Your task to perform on an android device: set default search engine in the chrome app Image 0: 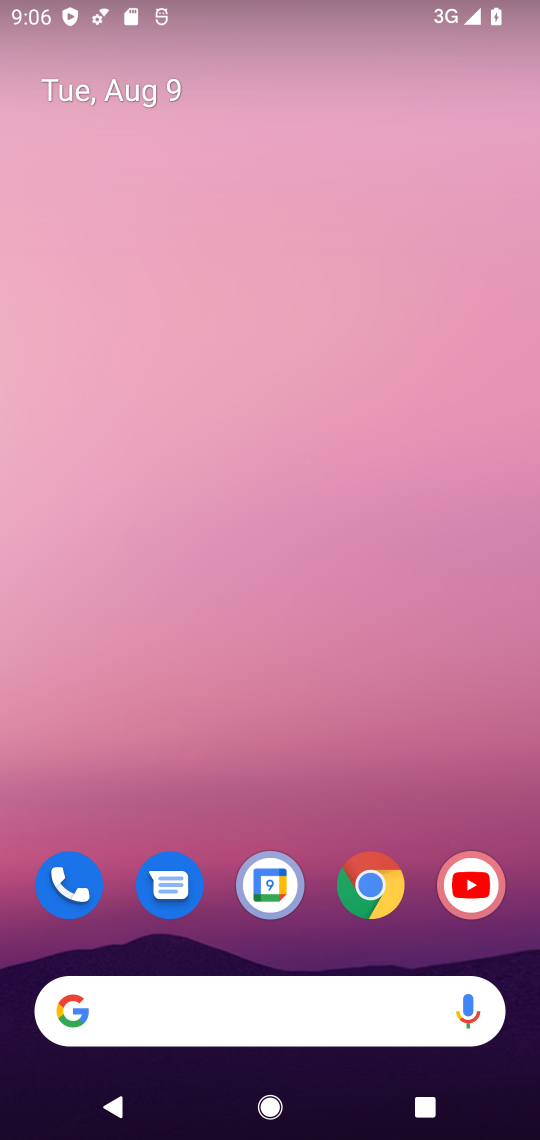
Step 0: press home button
Your task to perform on an android device: set default search engine in the chrome app Image 1: 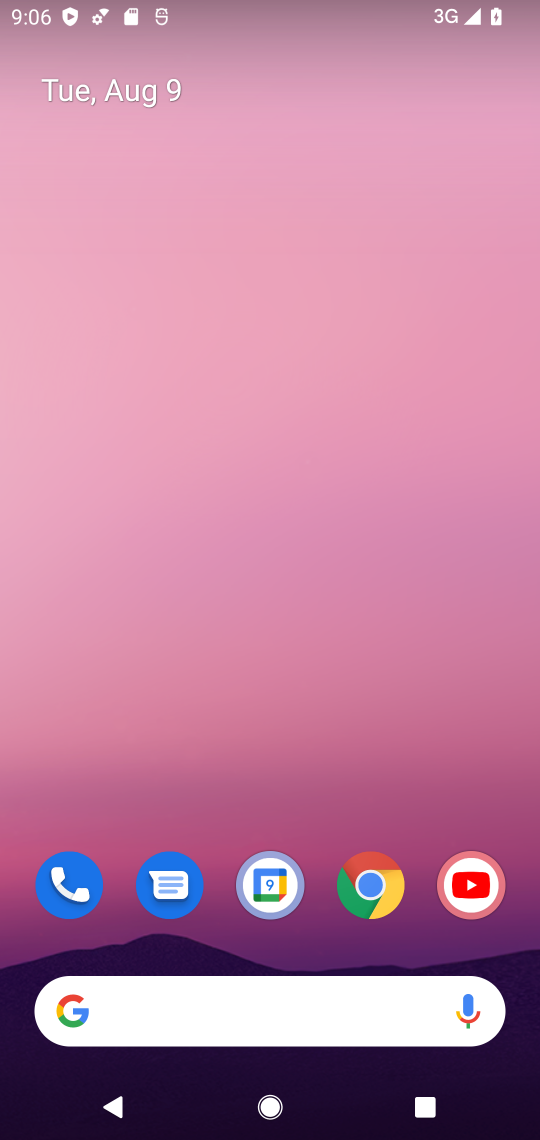
Step 1: drag from (309, 842) to (314, 268)
Your task to perform on an android device: set default search engine in the chrome app Image 2: 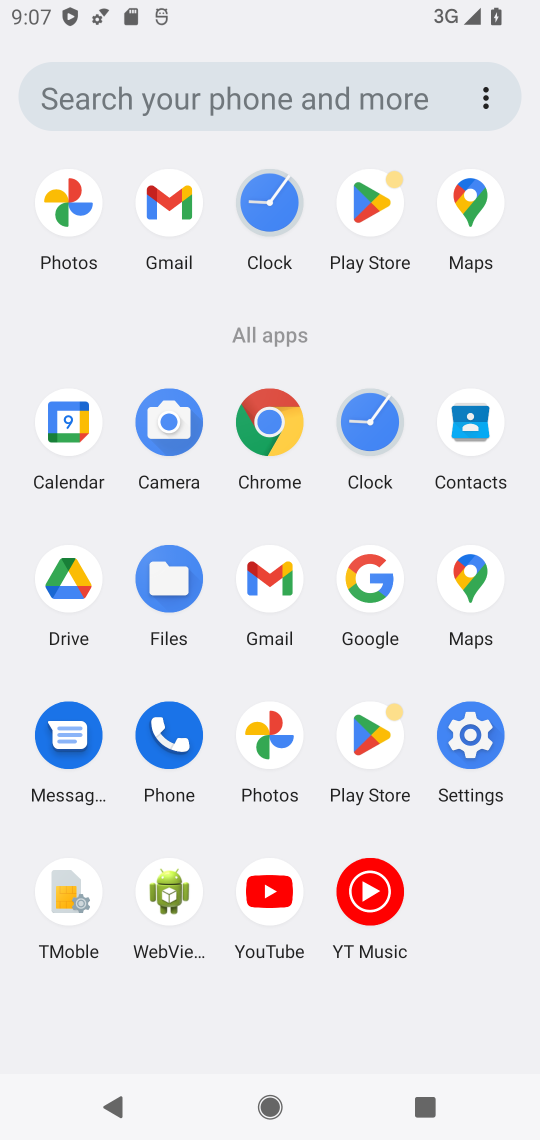
Step 2: click (263, 415)
Your task to perform on an android device: set default search engine in the chrome app Image 3: 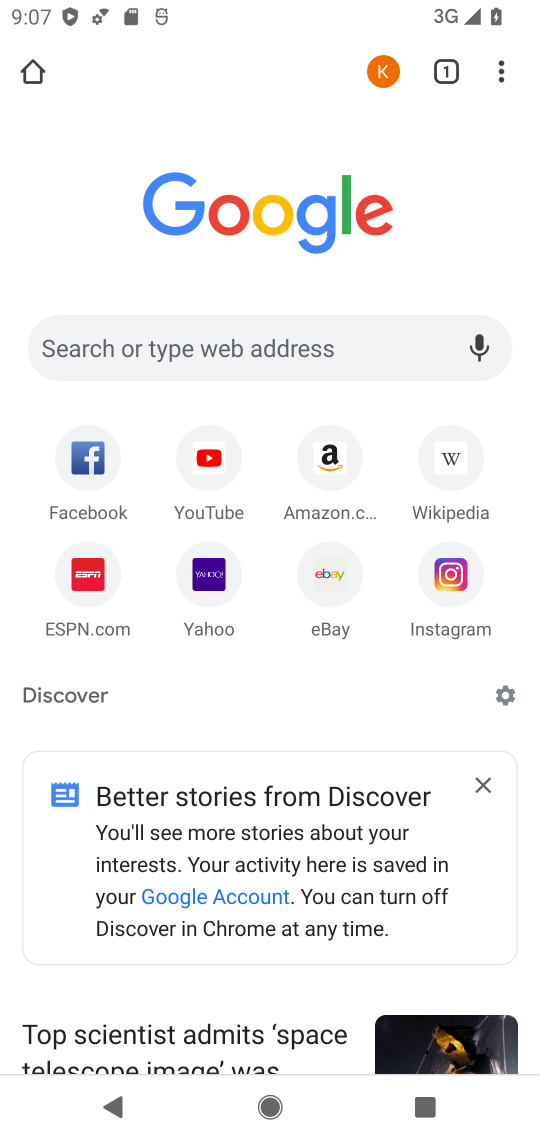
Step 3: click (506, 69)
Your task to perform on an android device: set default search engine in the chrome app Image 4: 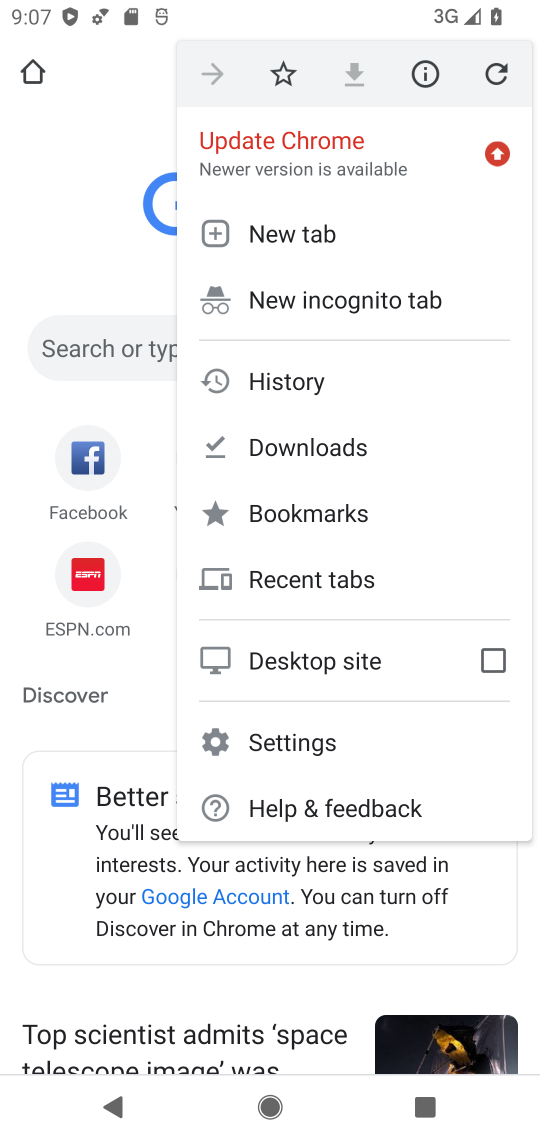
Step 4: click (256, 731)
Your task to perform on an android device: set default search engine in the chrome app Image 5: 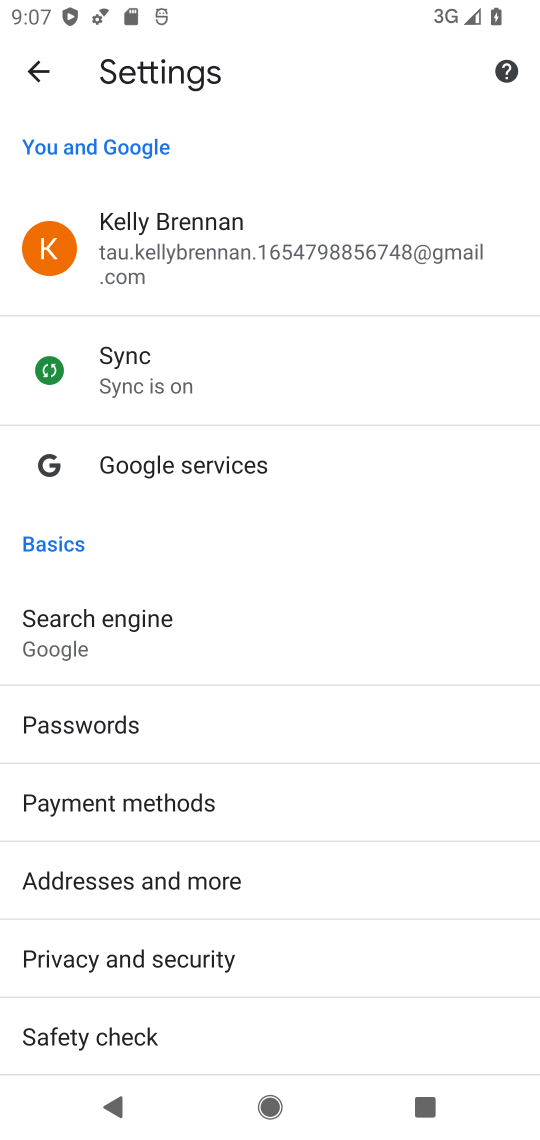
Step 5: click (136, 648)
Your task to perform on an android device: set default search engine in the chrome app Image 6: 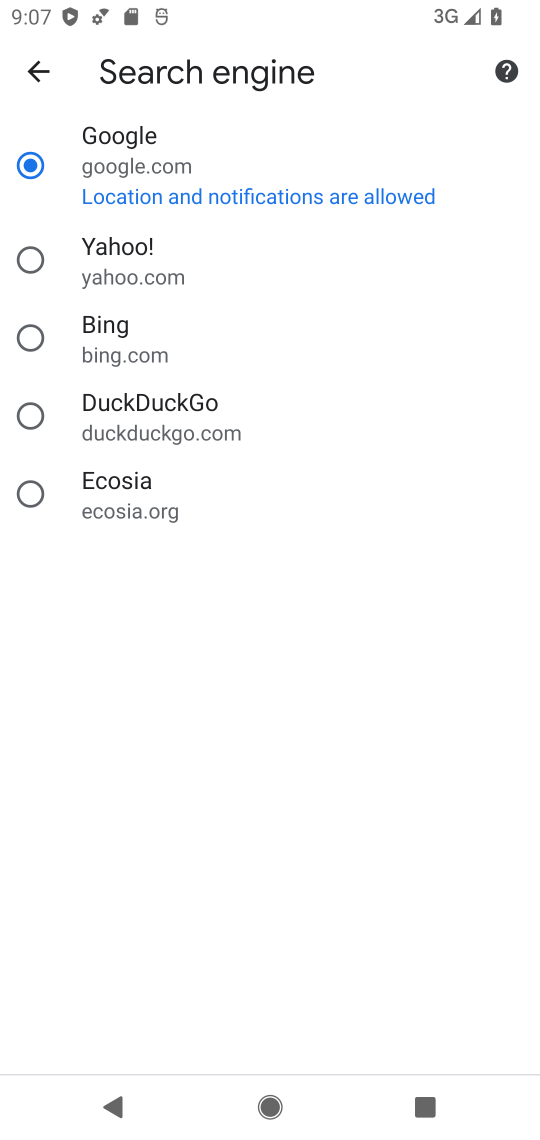
Step 6: click (30, 339)
Your task to perform on an android device: set default search engine in the chrome app Image 7: 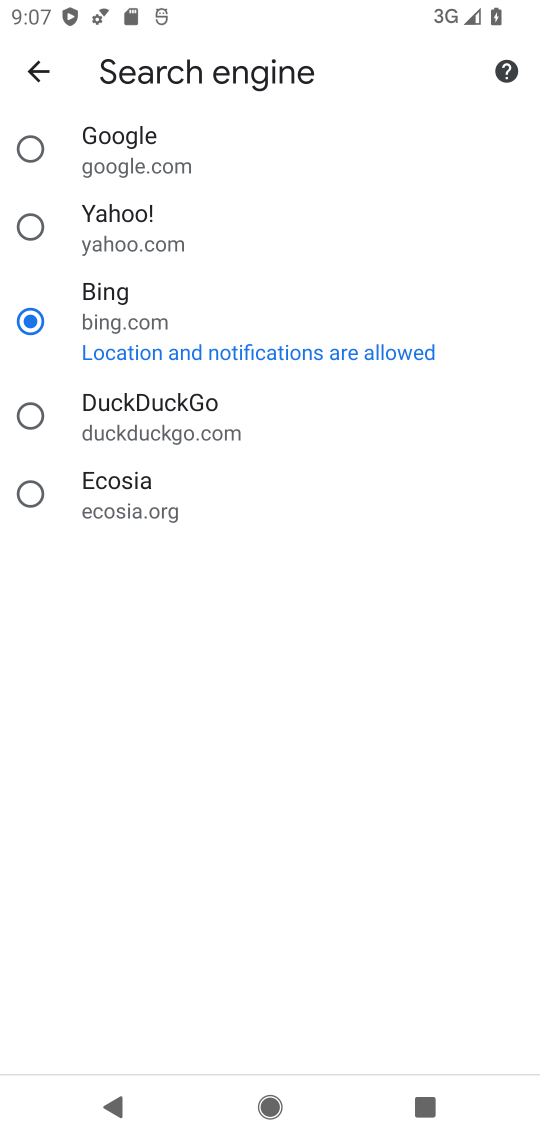
Step 7: task complete